Your task to perform on an android device: turn on the 24-hour format for clock Image 0: 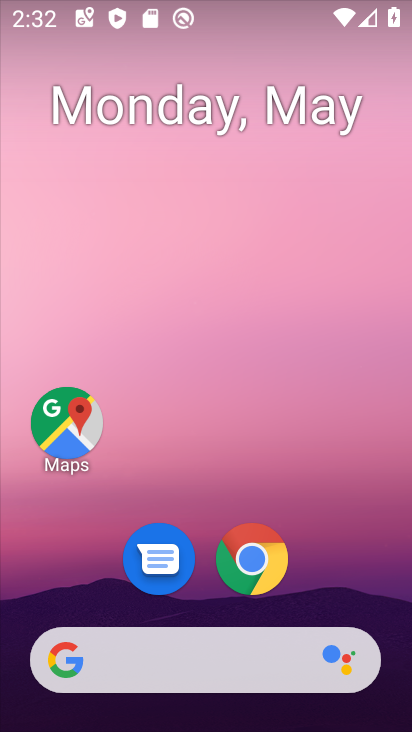
Step 0: drag from (267, 724) to (212, 114)
Your task to perform on an android device: turn on the 24-hour format for clock Image 1: 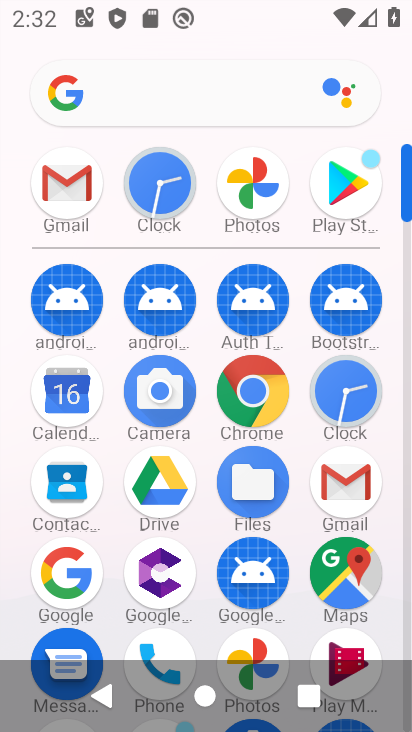
Step 1: click (351, 394)
Your task to perform on an android device: turn on the 24-hour format for clock Image 2: 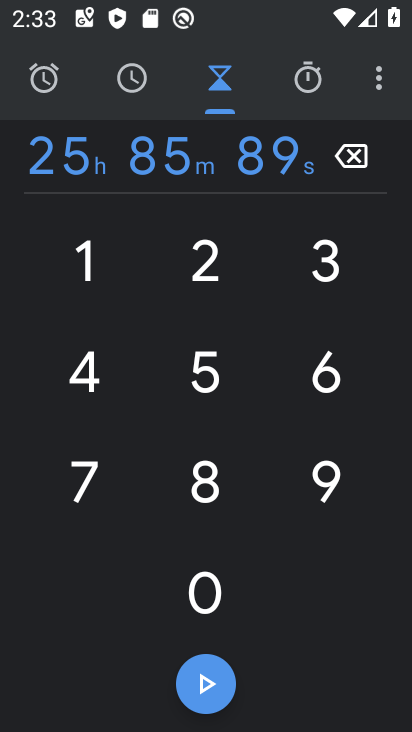
Step 2: click (384, 86)
Your task to perform on an android device: turn on the 24-hour format for clock Image 3: 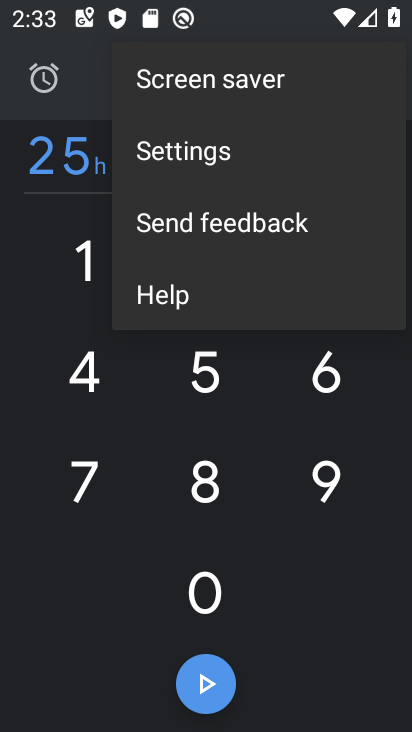
Step 3: click (276, 163)
Your task to perform on an android device: turn on the 24-hour format for clock Image 4: 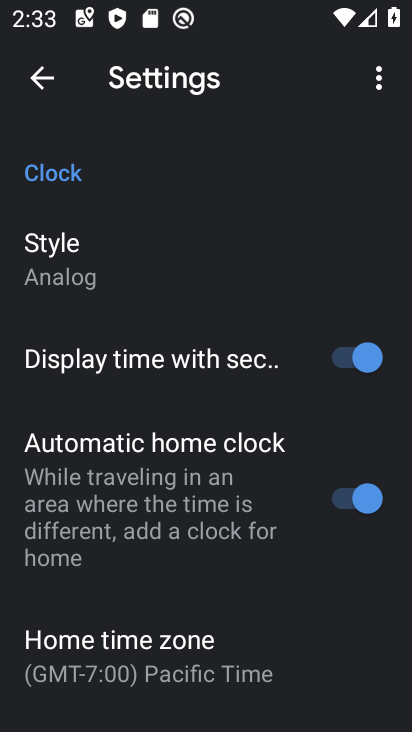
Step 4: drag from (305, 616) to (240, 209)
Your task to perform on an android device: turn on the 24-hour format for clock Image 5: 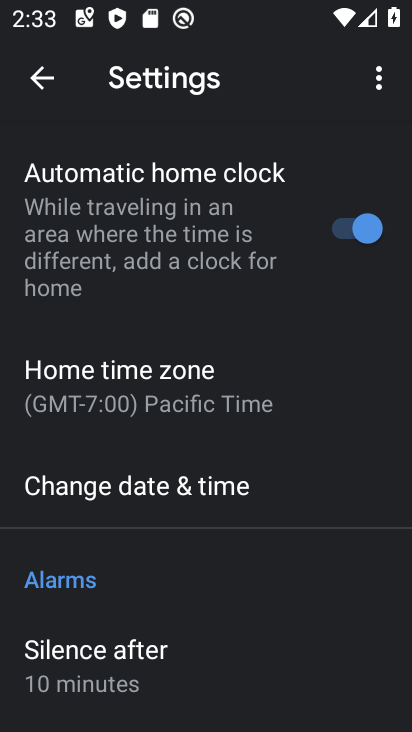
Step 5: click (271, 491)
Your task to perform on an android device: turn on the 24-hour format for clock Image 6: 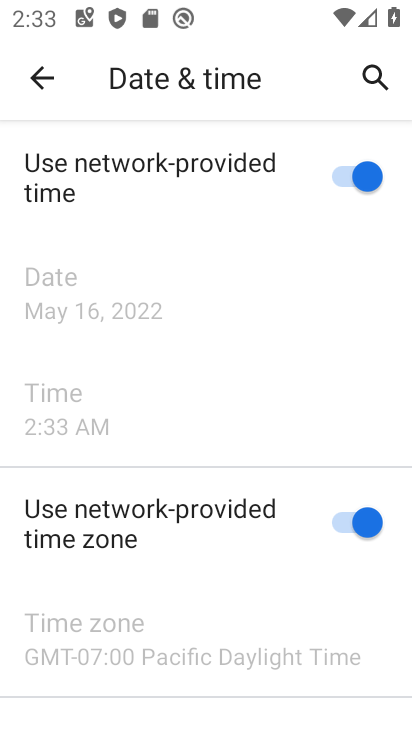
Step 6: drag from (298, 637) to (281, 80)
Your task to perform on an android device: turn on the 24-hour format for clock Image 7: 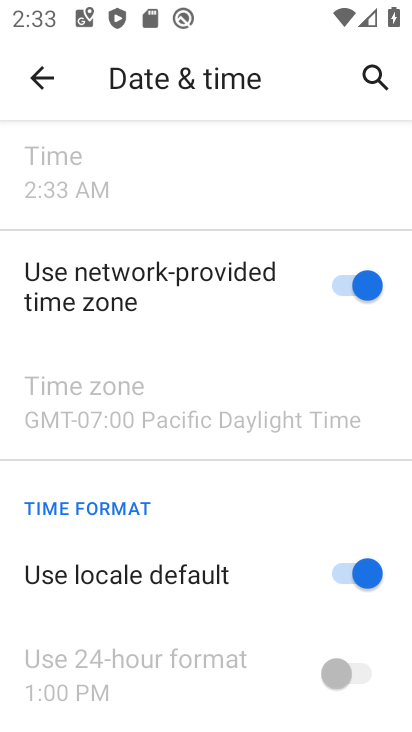
Step 7: click (361, 569)
Your task to perform on an android device: turn on the 24-hour format for clock Image 8: 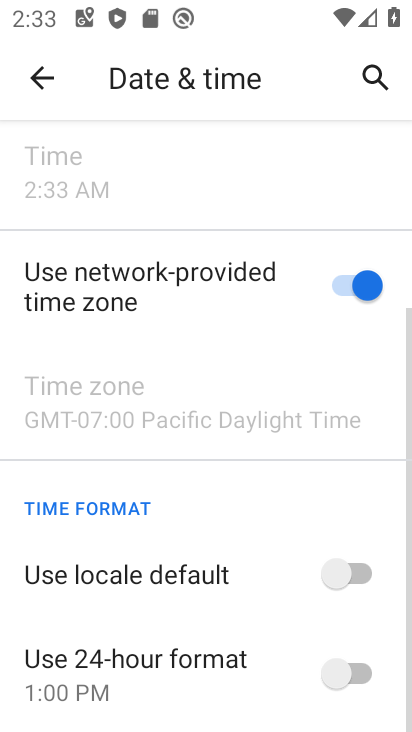
Step 8: click (345, 678)
Your task to perform on an android device: turn on the 24-hour format for clock Image 9: 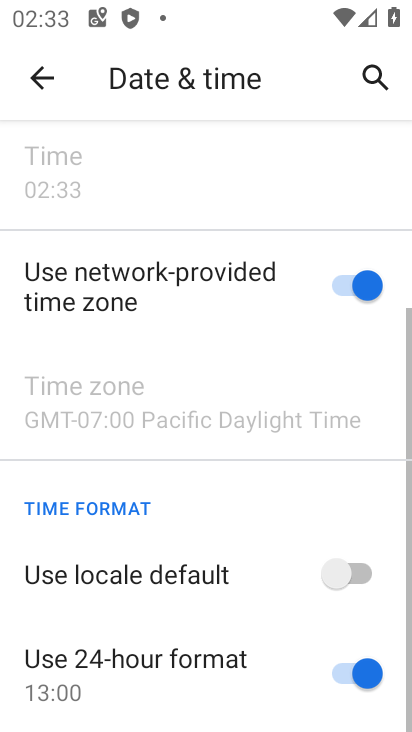
Step 9: task complete